Your task to perform on an android device: Open Youtube and go to the subscriptions tab Image 0: 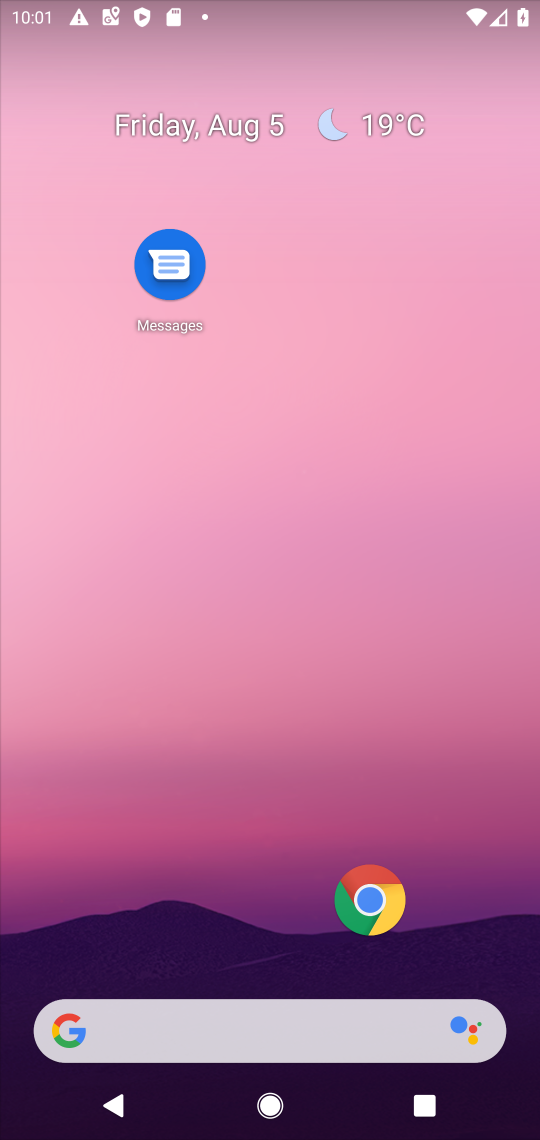
Step 0: drag from (204, 887) to (205, 27)
Your task to perform on an android device: Open Youtube and go to the subscriptions tab Image 1: 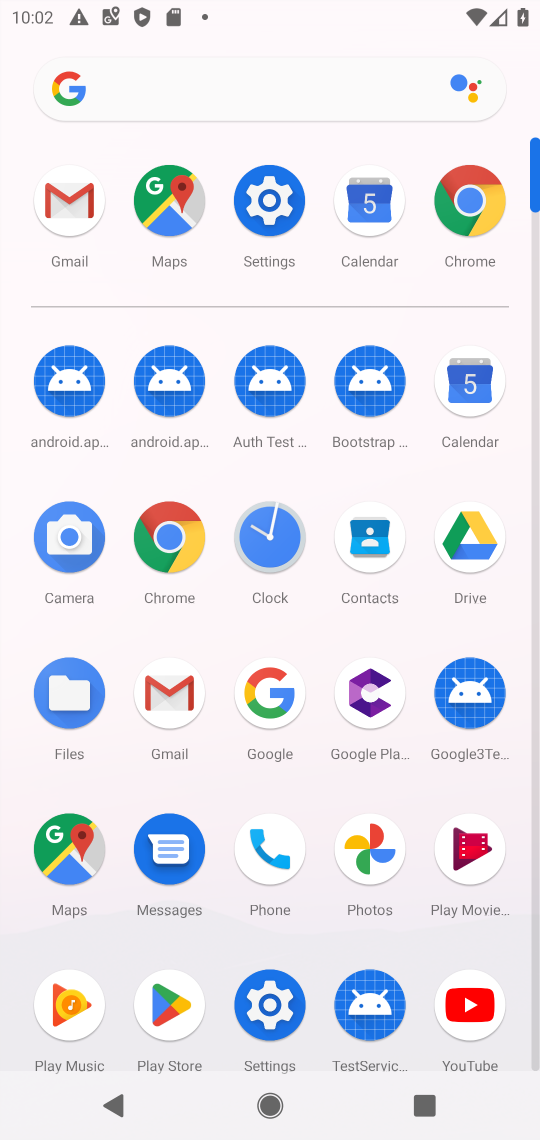
Step 1: click (465, 994)
Your task to perform on an android device: Open Youtube and go to the subscriptions tab Image 2: 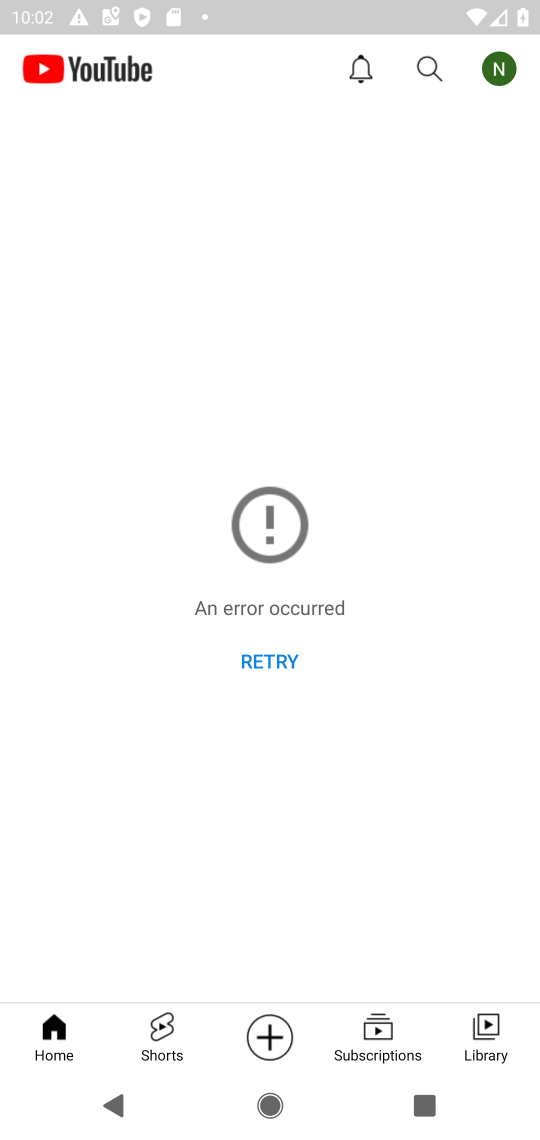
Step 2: click (373, 1029)
Your task to perform on an android device: Open Youtube and go to the subscriptions tab Image 3: 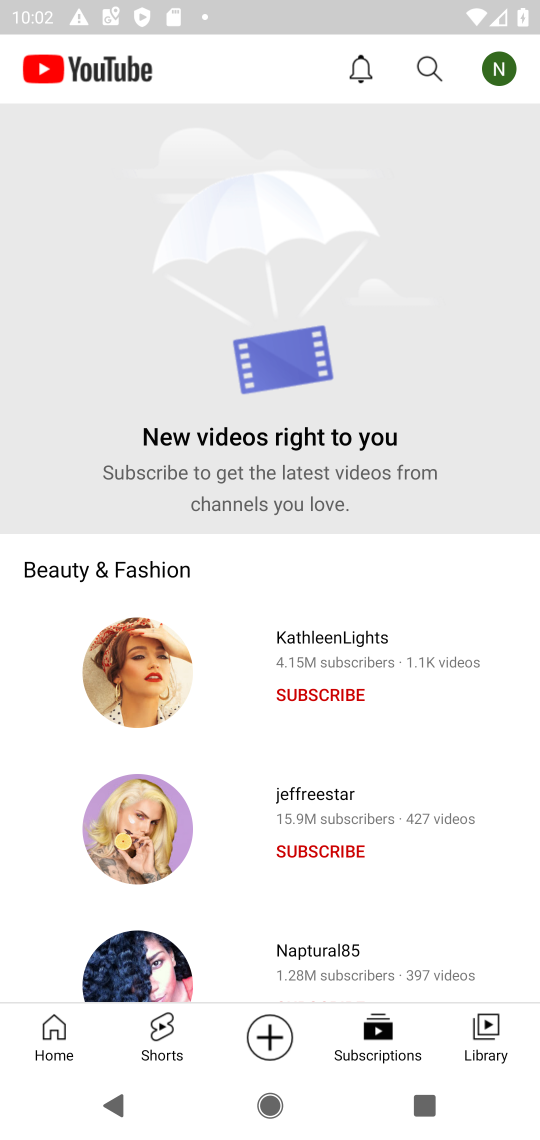
Step 3: task complete